Your task to perform on an android device: change the clock display to show seconds Image 0: 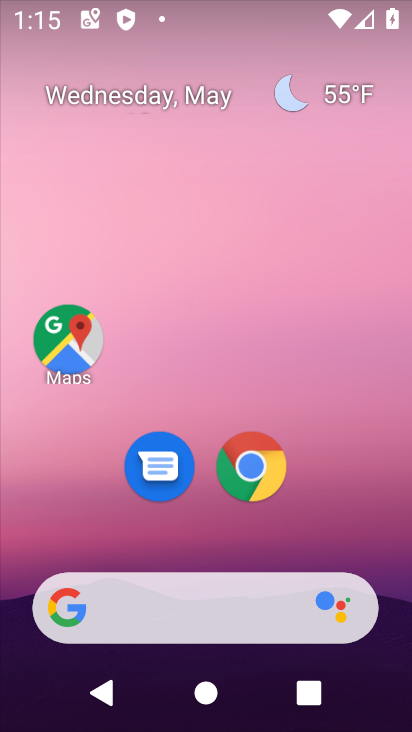
Step 0: drag from (332, 466) to (316, 38)
Your task to perform on an android device: change the clock display to show seconds Image 1: 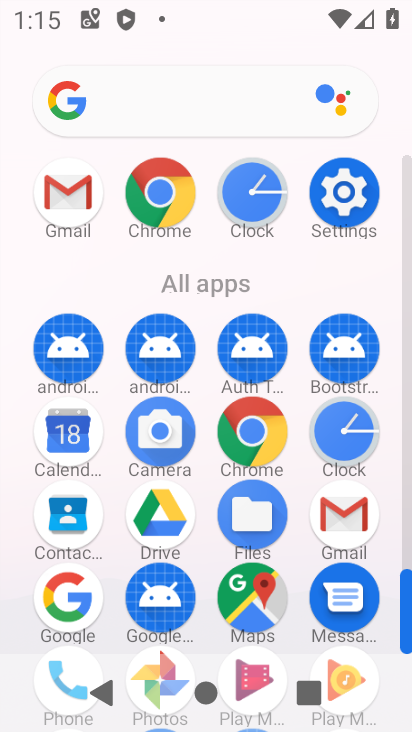
Step 1: click (336, 434)
Your task to perform on an android device: change the clock display to show seconds Image 2: 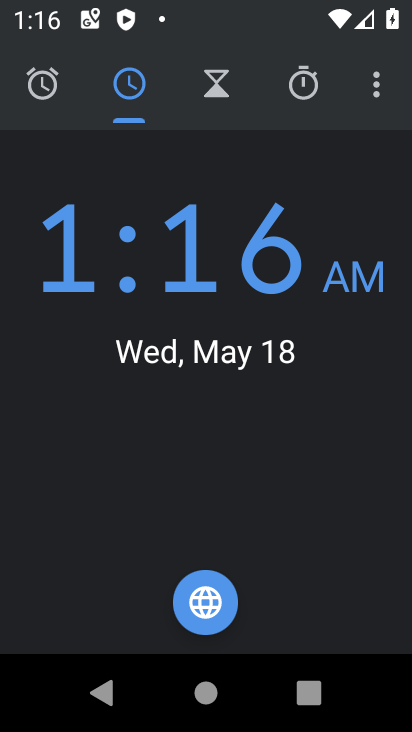
Step 2: click (374, 102)
Your task to perform on an android device: change the clock display to show seconds Image 3: 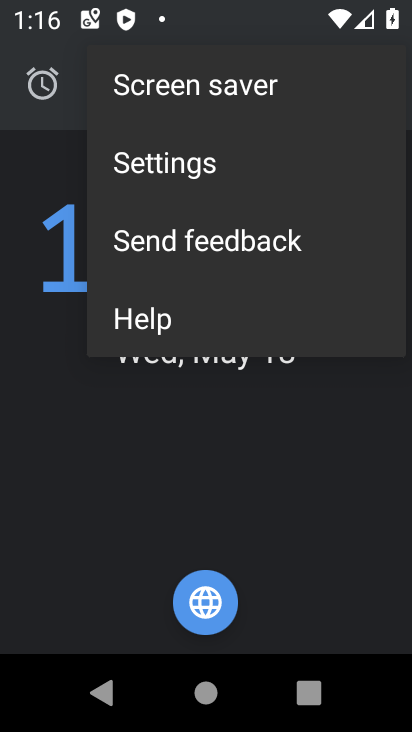
Step 3: click (224, 157)
Your task to perform on an android device: change the clock display to show seconds Image 4: 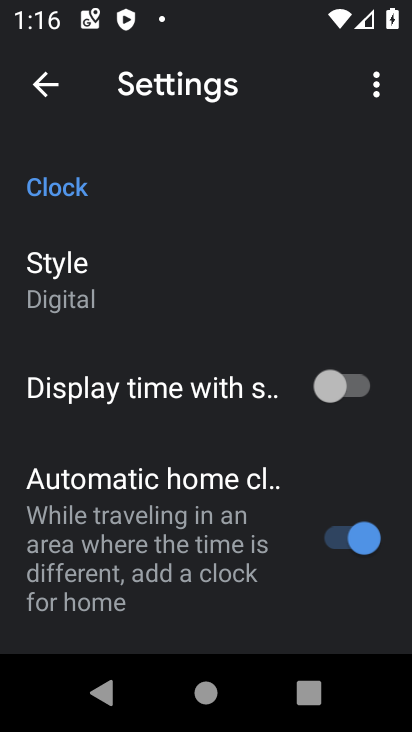
Step 4: click (356, 393)
Your task to perform on an android device: change the clock display to show seconds Image 5: 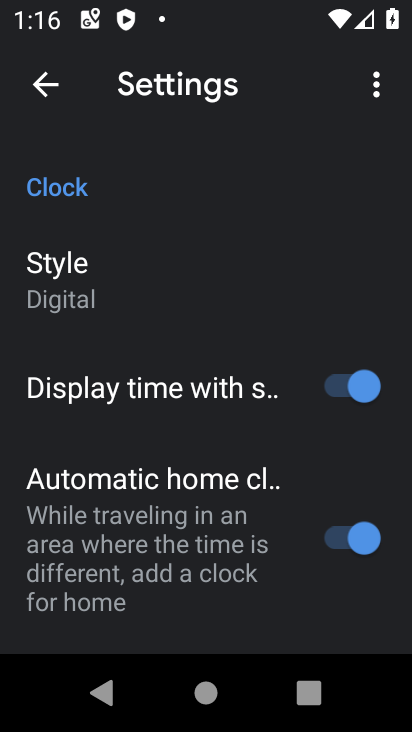
Step 5: task complete